Your task to perform on an android device: Go to internet settings Image 0: 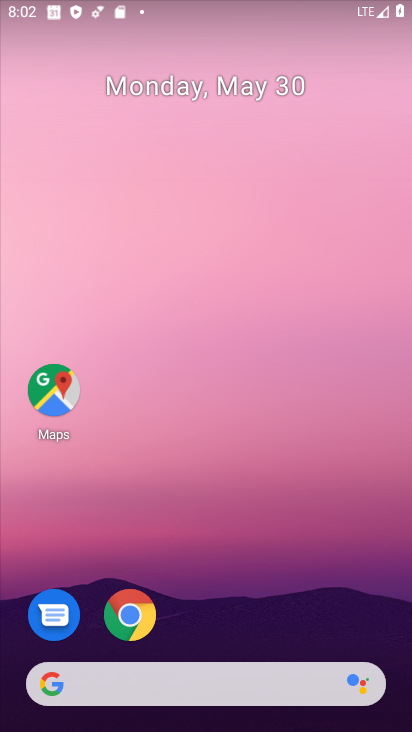
Step 0: drag from (101, 728) to (162, 108)
Your task to perform on an android device: Go to internet settings Image 1: 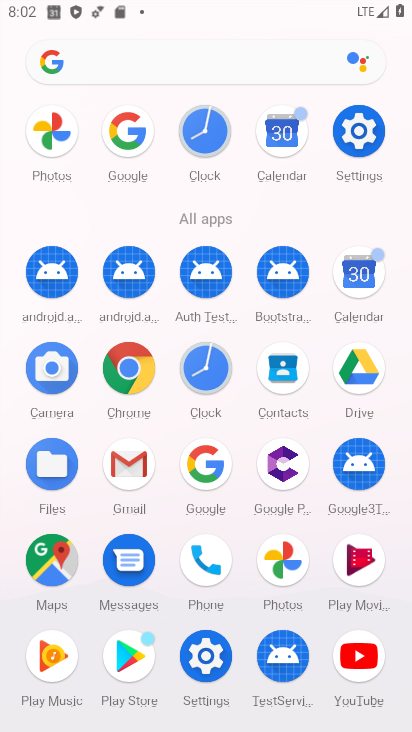
Step 1: click (360, 151)
Your task to perform on an android device: Go to internet settings Image 2: 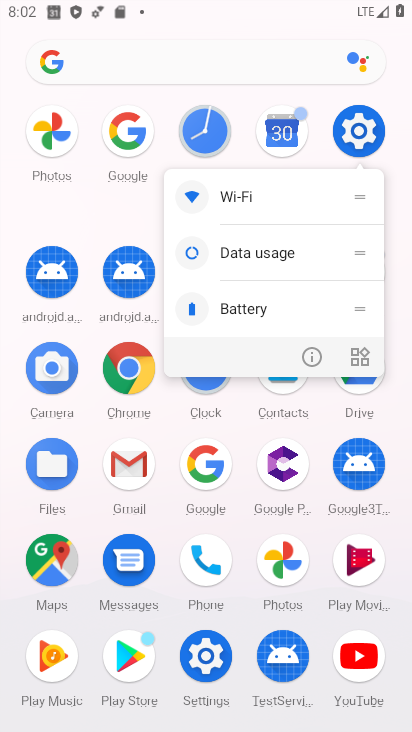
Step 2: click (351, 124)
Your task to perform on an android device: Go to internet settings Image 3: 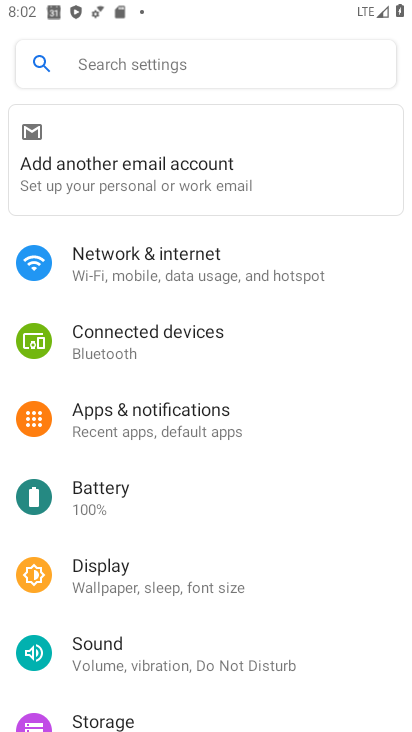
Step 3: drag from (312, 564) to (230, 388)
Your task to perform on an android device: Go to internet settings Image 4: 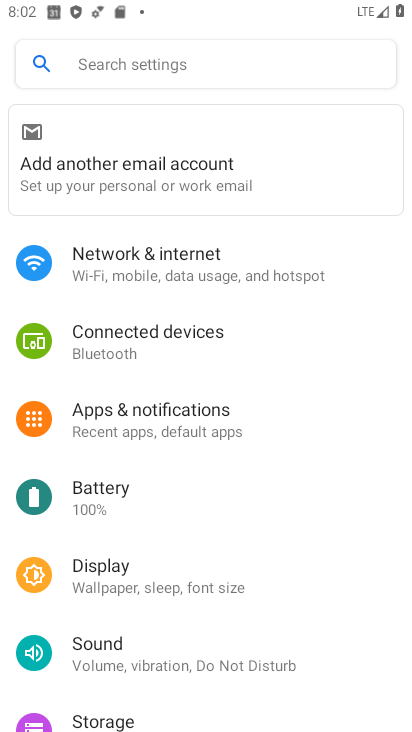
Step 4: click (203, 277)
Your task to perform on an android device: Go to internet settings Image 5: 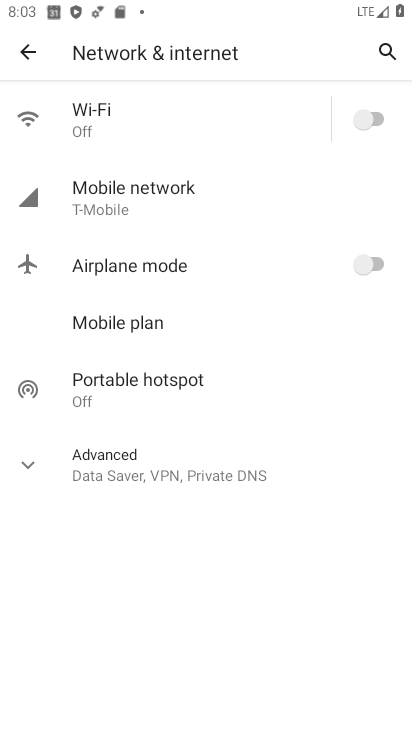
Step 5: task complete